Your task to perform on an android device: toggle pop-ups in chrome Image 0: 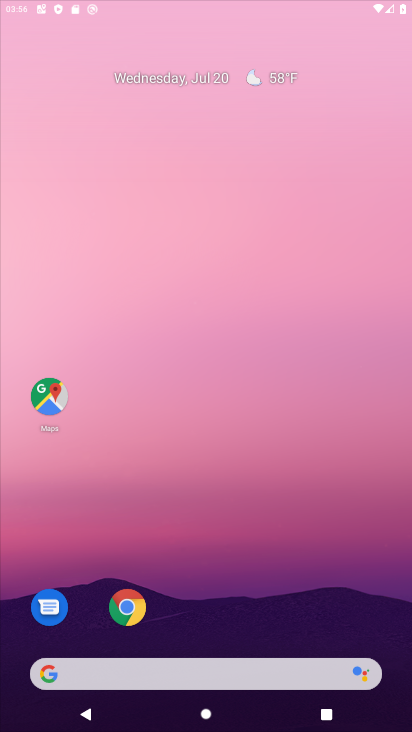
Step 0: click (325, 513)
Your task to perform on an android device: toggle pop-ups in chrome Image 1: 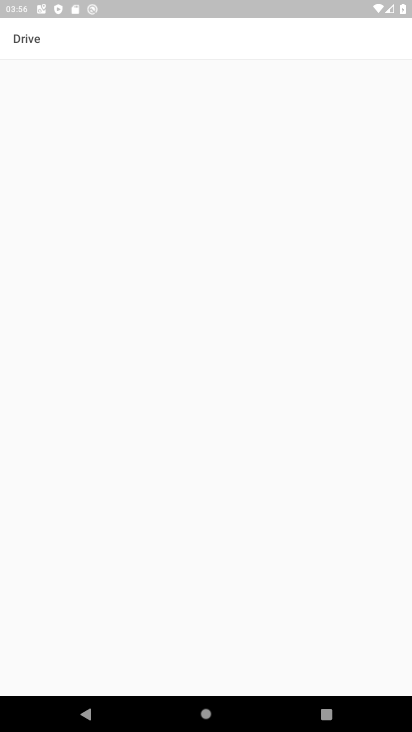
Step 1: task complete